Your task to perform on an android device: Open Google Chrome and click the shortcut for Amazon.com Image 0: 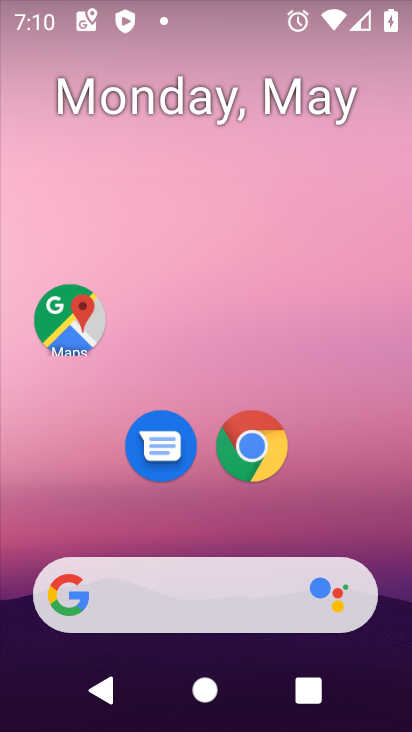
Step 0: click (250, 451)
Your task to perform on an android device: Open Google Chrome and click the shortcut for Amazon.com Image 1: 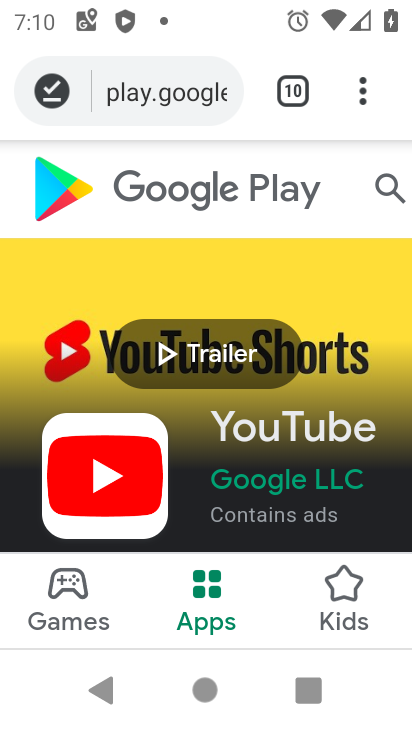
Step 1: click (358, 92)
Your task to perform on an android device: Open Google Chrome and click the shortcut for Amazon.com Image 2: 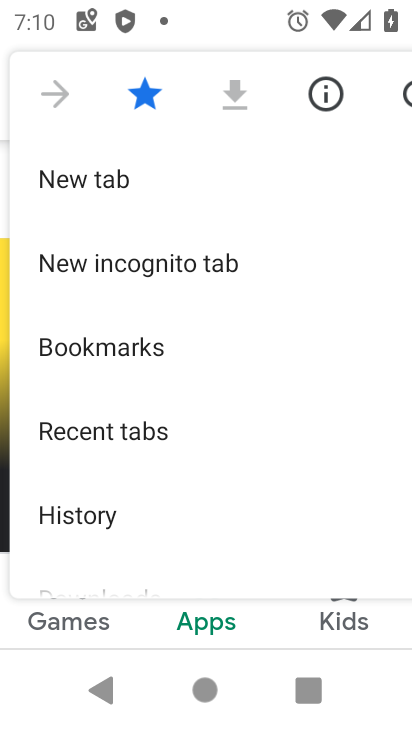
Step 2: click (65, 181)
Your task to perform on an android device: Open Google Chrome and click the shortcut for Amazon.com Image 3: 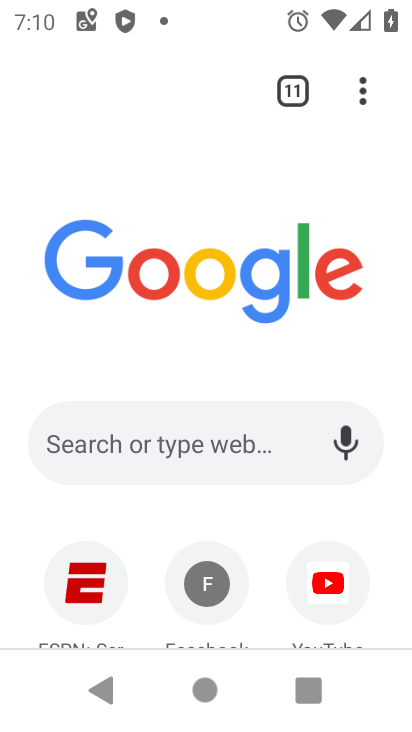
Step 3: drag from (175, 366) to (140, 151)
Your task to perform on an android device: Open Google Chrome and click the shortcut for Amazon.com Image 4: 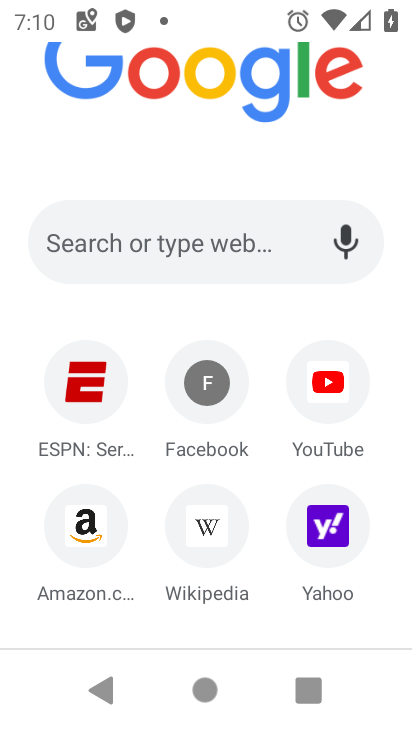
Step 4: click (98, 529)
Your task to perform on an android device: Open Google Chrome and click the shortcut for Amazon.com Image 5: 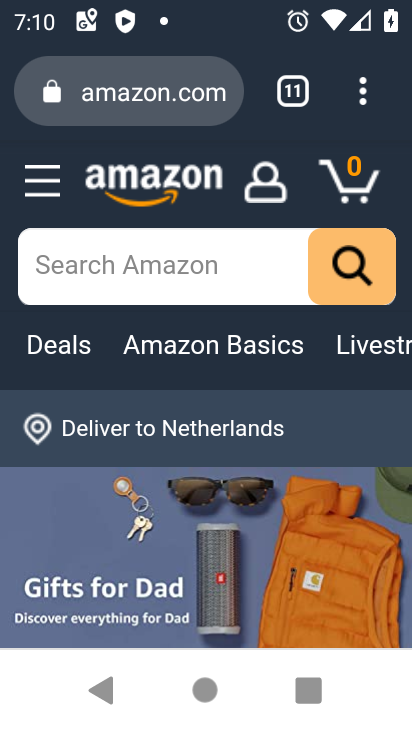
Step 5: task complete